Your task to perform on an android device: Search for the best books of all time on Goodreads Image 0: 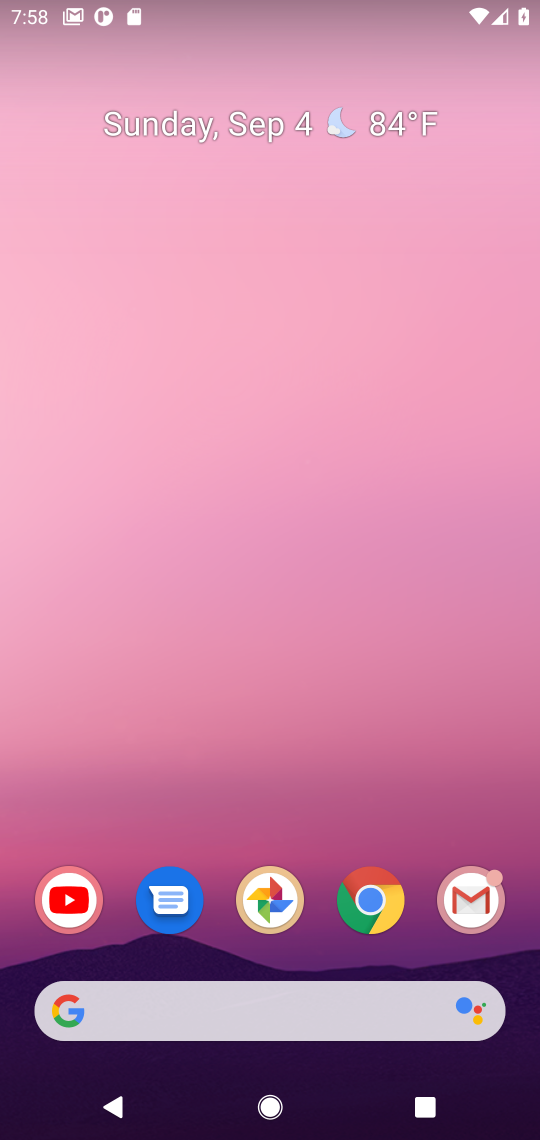
Step 0: drag from (330, 971) to (432, 149)
Your task to perform on an android device: Search for the best books of all time on Goodreads Image 1: 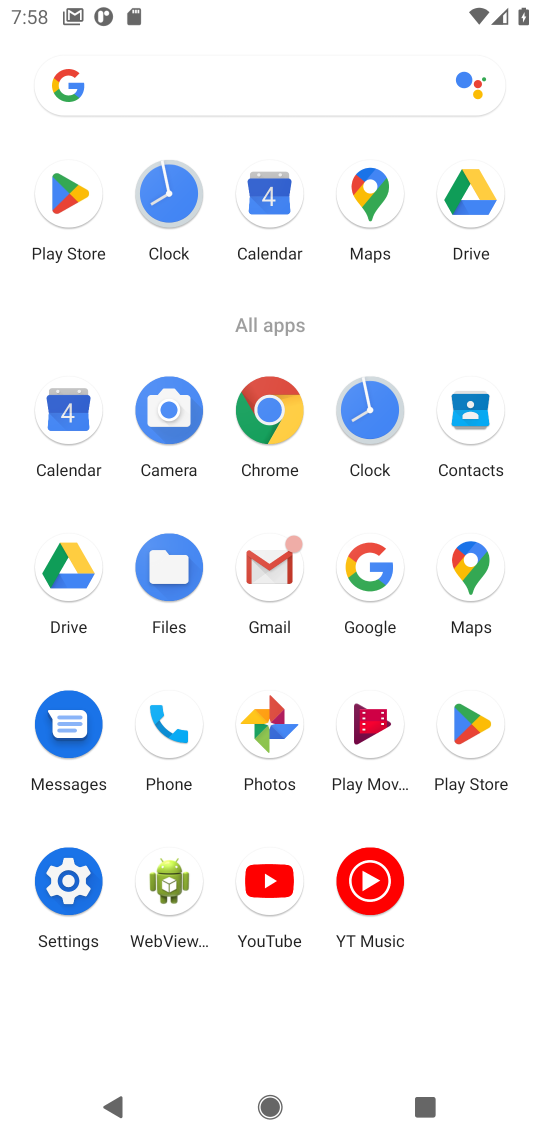
Step 1: click (273, 416)
Your task to perform on an android device: Search for the best books of all time on Goodreads Image 2: 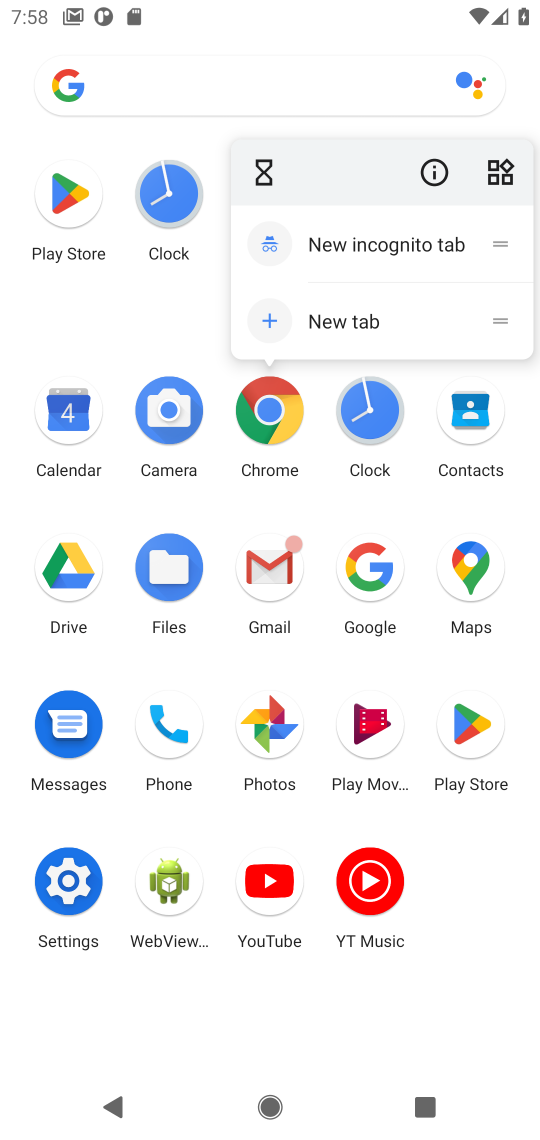
Step 2: click (272, 416)
Your task to perform on an android device: Search for the best books of all time on Goodreads Image 3: 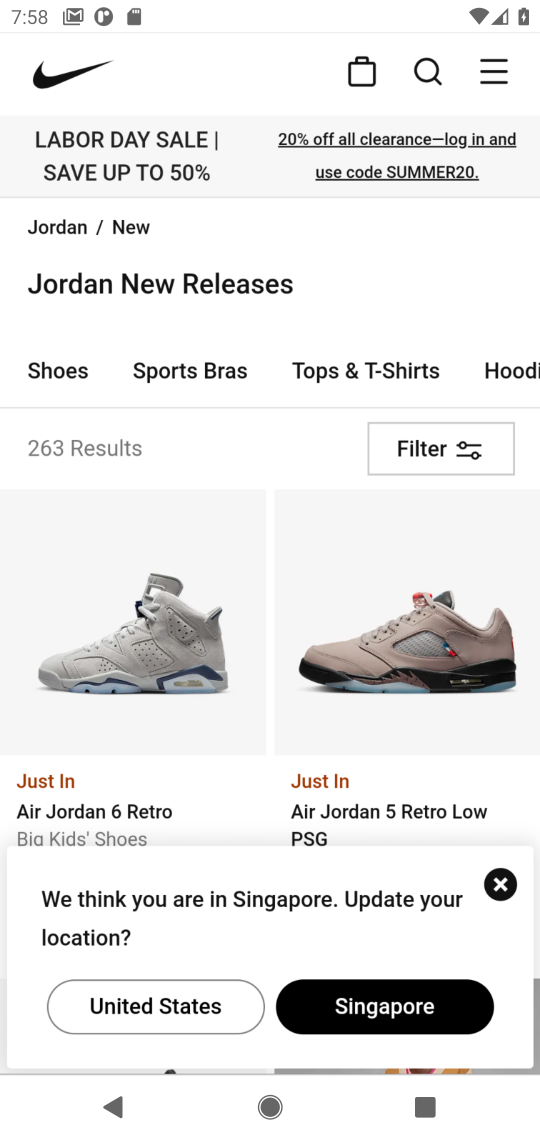
Step 3: drag from (354, 188) to (321, 787)
Your task to perform on an android device: Search for the best books of all time on Goodreads Image 4: 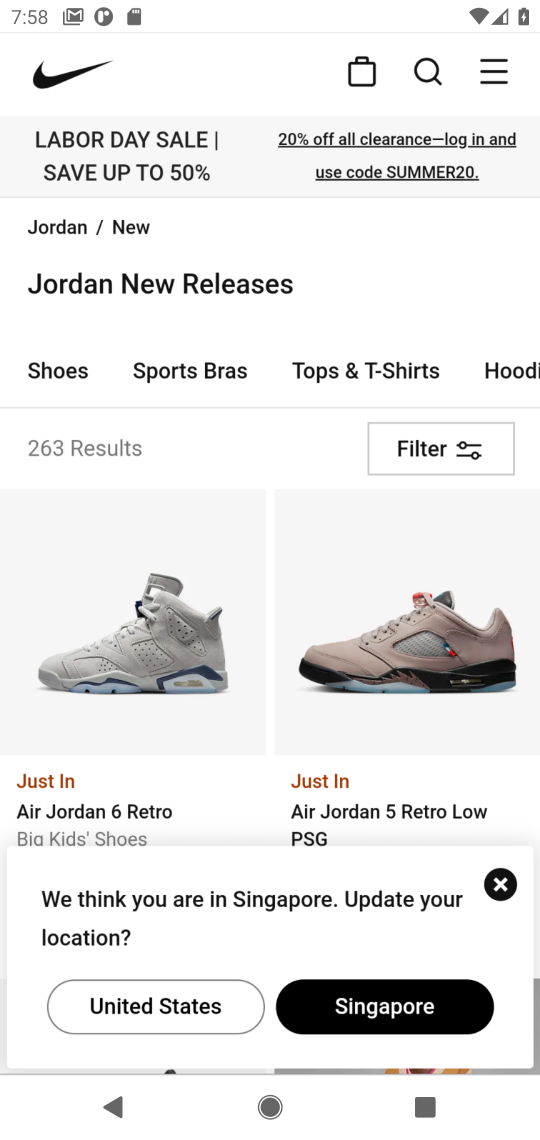
Step 4: drag from (277, 259) to (266, 775)
Your task to perform on an android device: Search for the best books of all time on Goodreads Image 5: 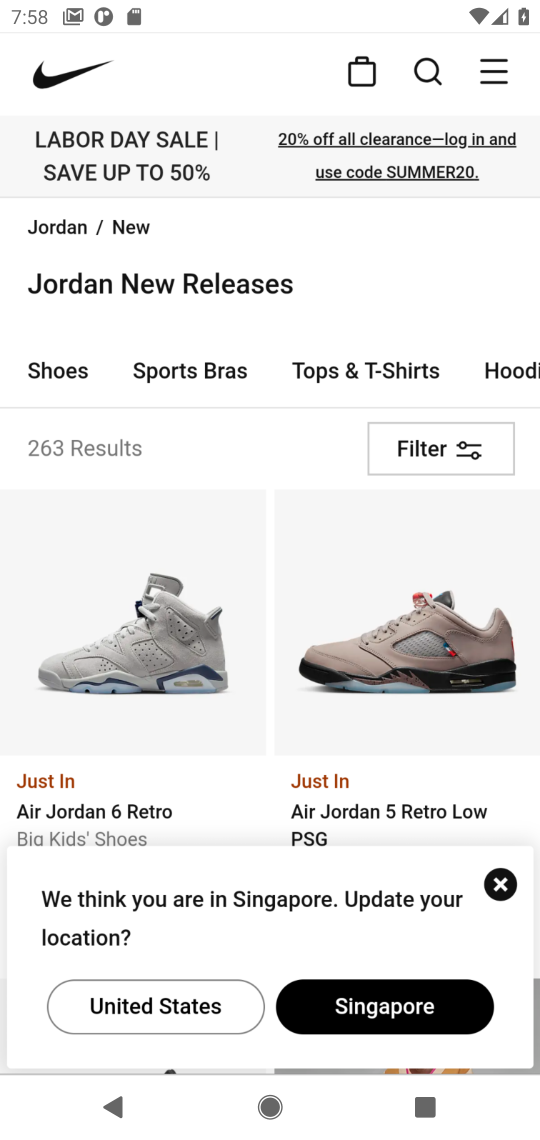
Step 5: drag from (444, 506) to (236, 1088)
Your task to perform on an android device: Search for the best books of all time on Goodreads Image 6: 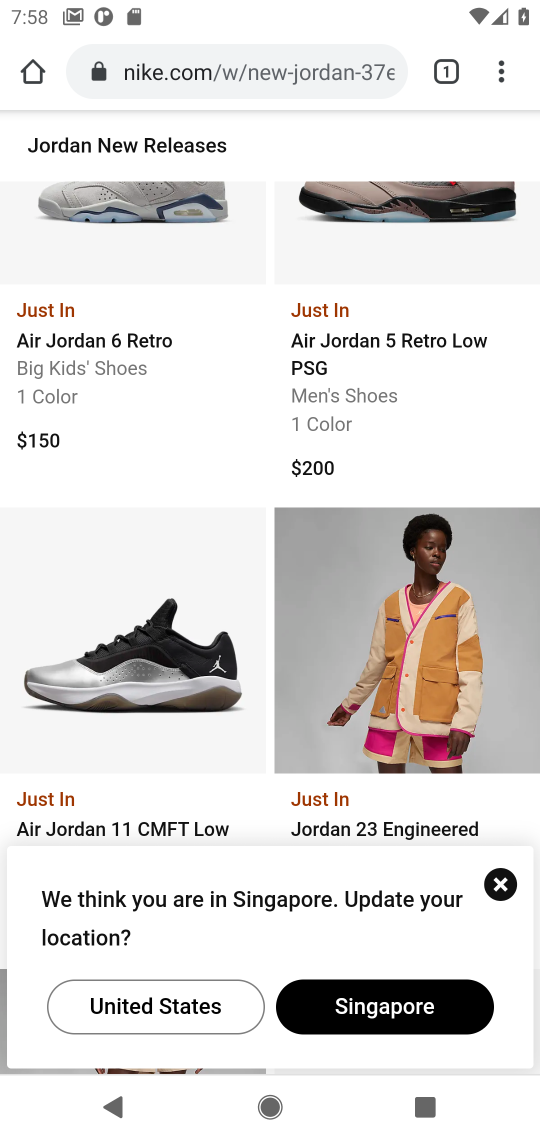
Step 6: click (171, 54)
Your task to perform on an android device: Search for the best books of all time on Goodreads Image 7: 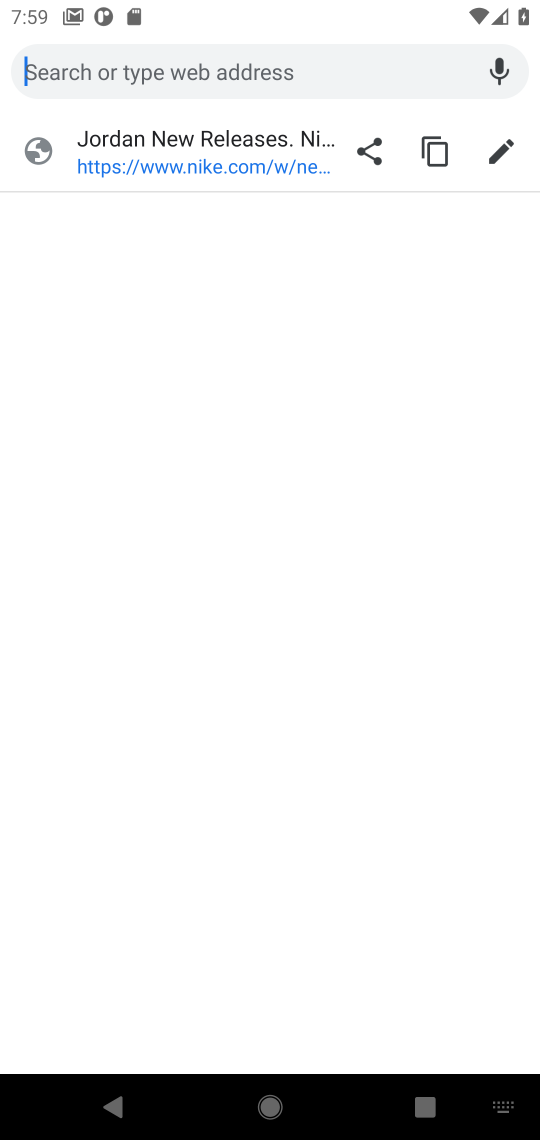
Step 7: type "best book of all time on Goodreads"
Your task to perform on an android device: Search for the best books of all time on Goodreads Image 8: 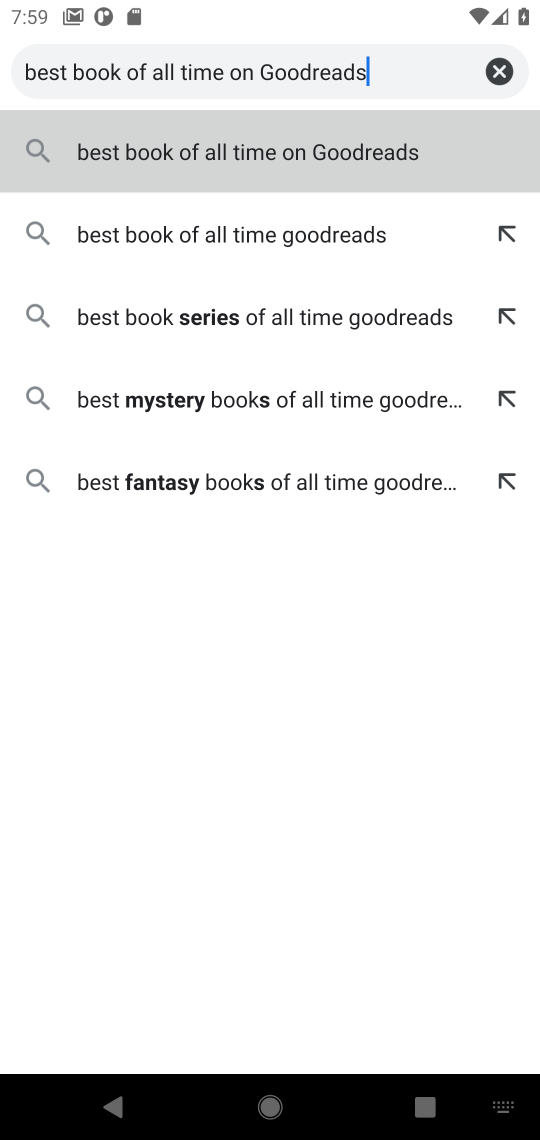
Step 8: press enter
Your task to perform on an android device: Search for the best books of all time on Goodreads Image 9: 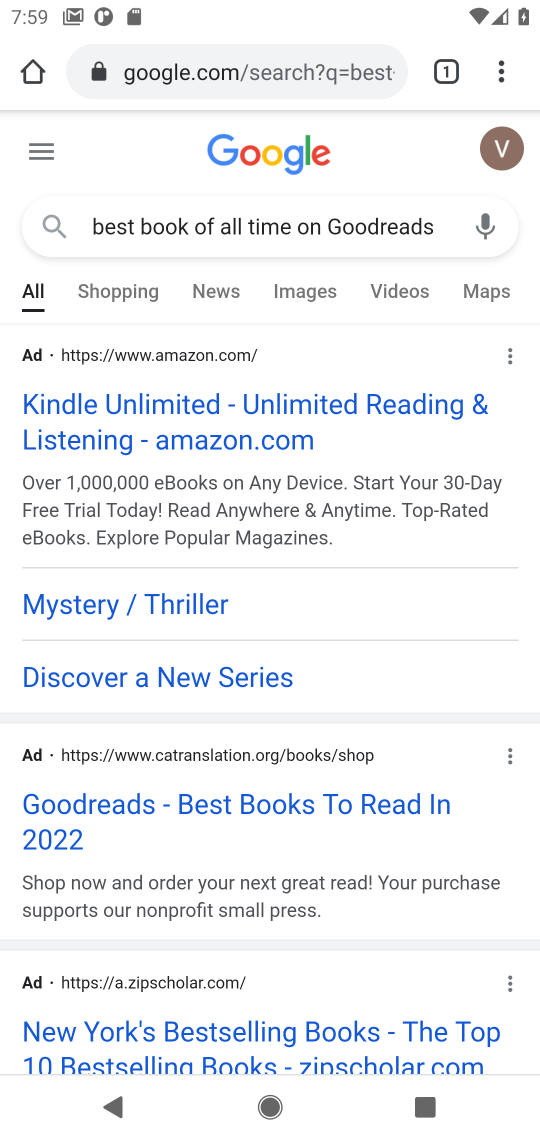
Step 9: drag from (283, 842) to (376, 241)
Your task to perform on an android device: Search for the best books of all time on Goodreads Image 10: 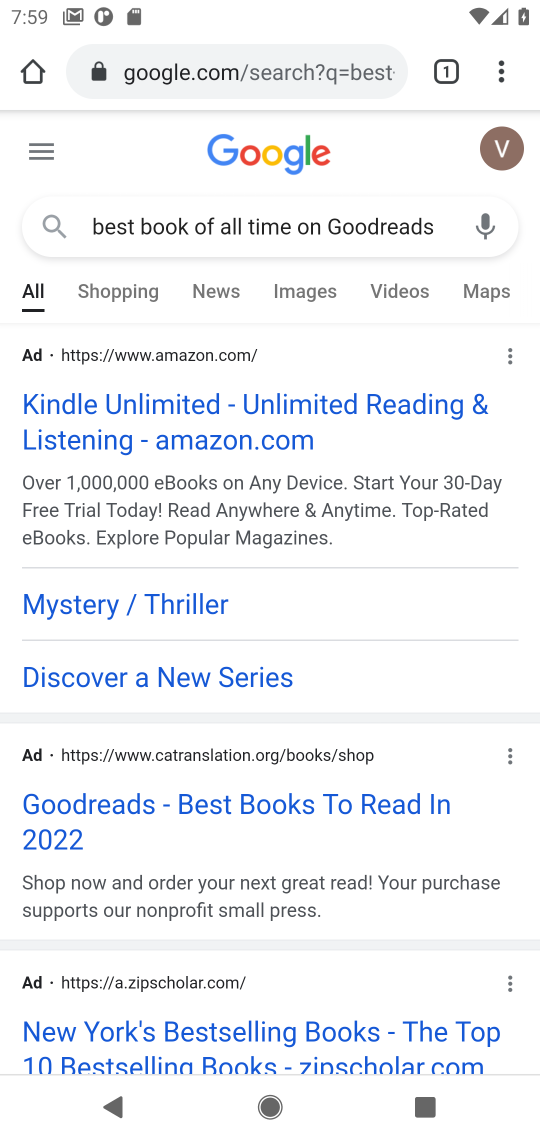
Step 10: drag from (317, 998) to (333, 385)
Your task to perform on an android device: Search for the best books of all time on Goodreads Image 11: 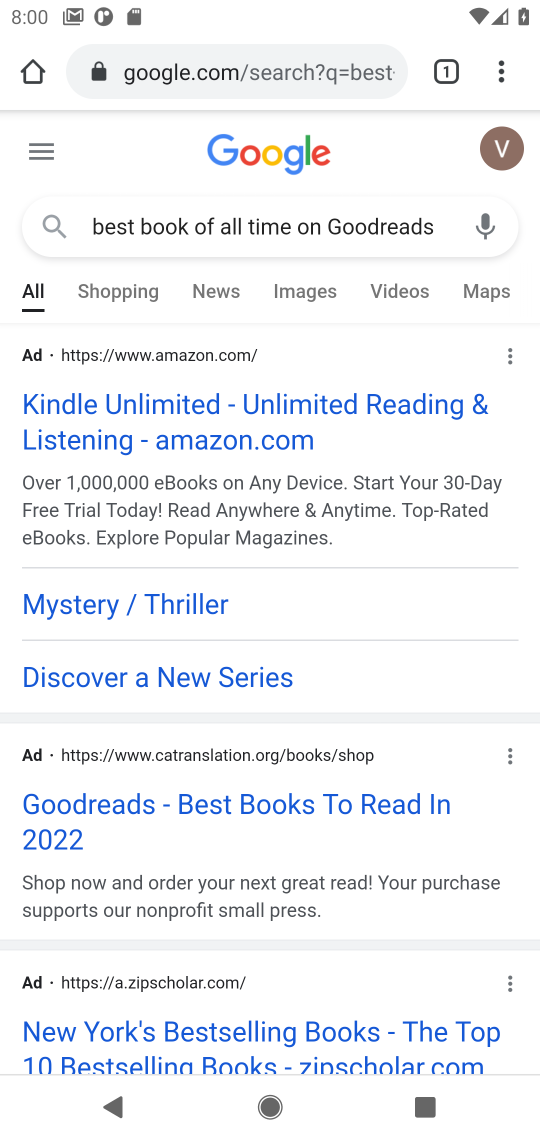
Step 11: drag from (375, 911) to (539, 202)
Your task to perform on an android device: Search for the best books of all time on Goodreads Image 12: 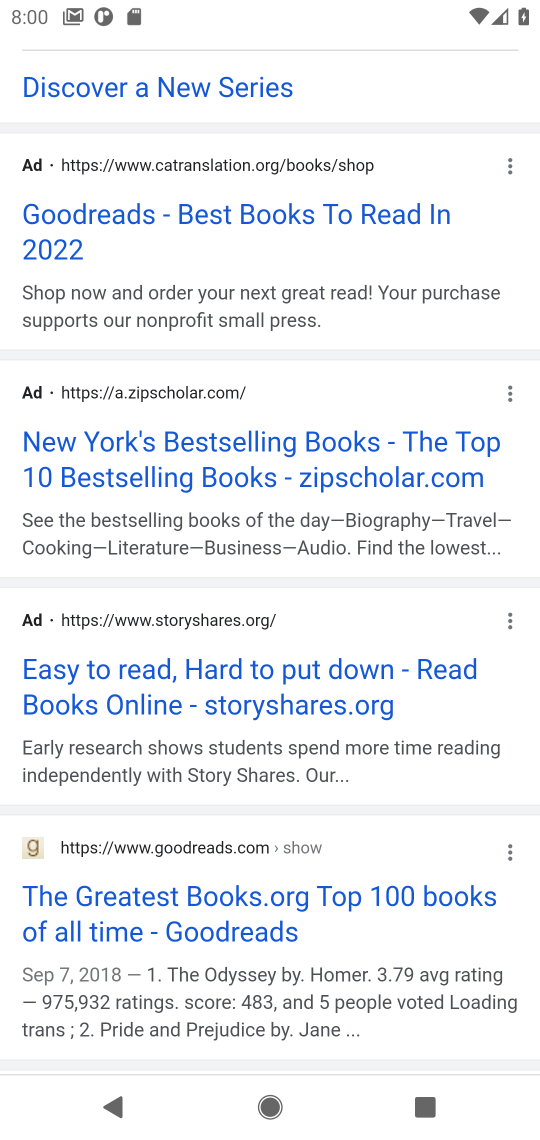
Step 12: click (305, 916)
Your task to perform on an android device: Search for the best books of all time on Goodreads Image 13: 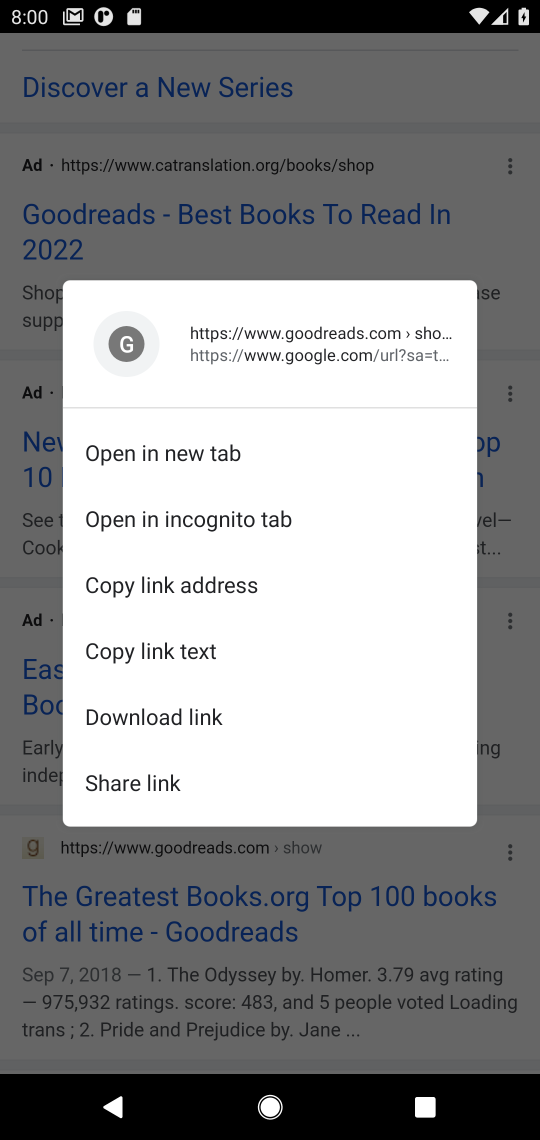
Step 13: click (192, 891)
Your task to perform on an android device: Search for the best books of all time on Goodreads Image 14: 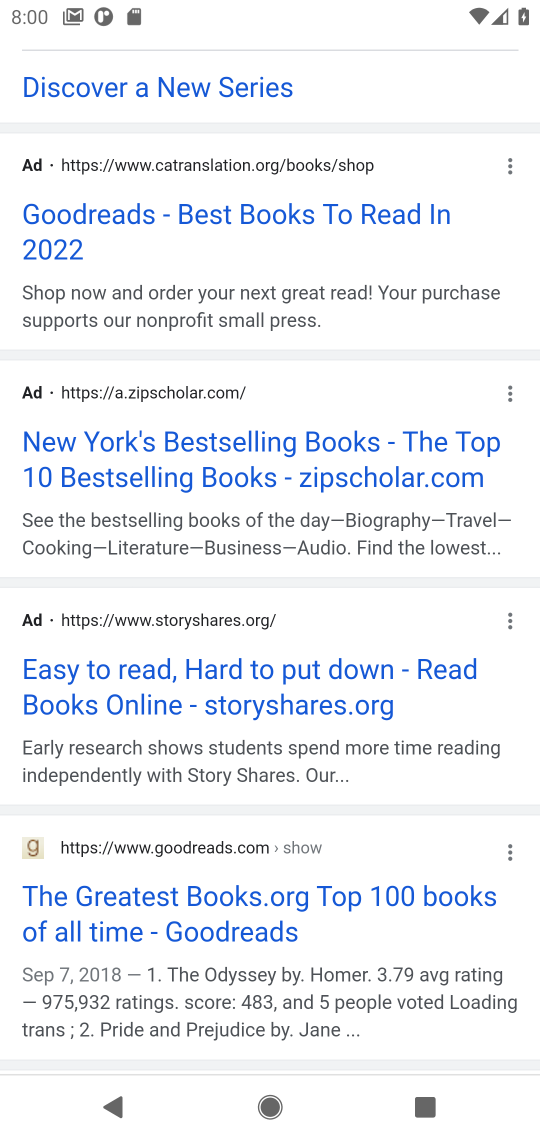
Step 14: click (192, 891)
Your task to perform on an android device: Search for the best books of all time on Goodreads Image 15: 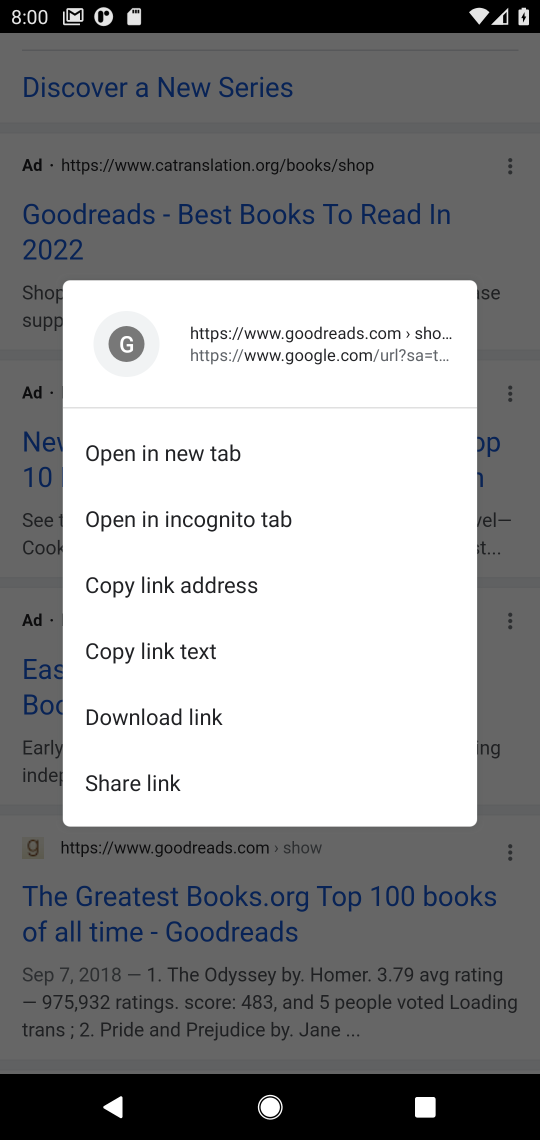
Step 15: click (192, 891)
Your task to perform on an android device: Search for the best books of all time on Goodreads Image 16: 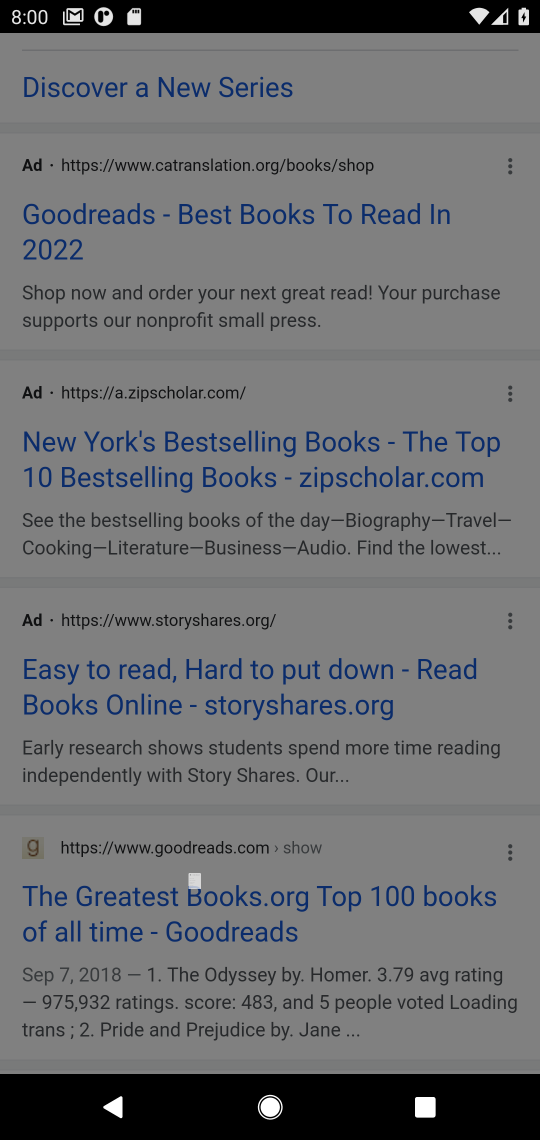
Step 16: click (180, 923)
Your task to perform on an android device: Search for the best books of all time on Goodreads Image 17: 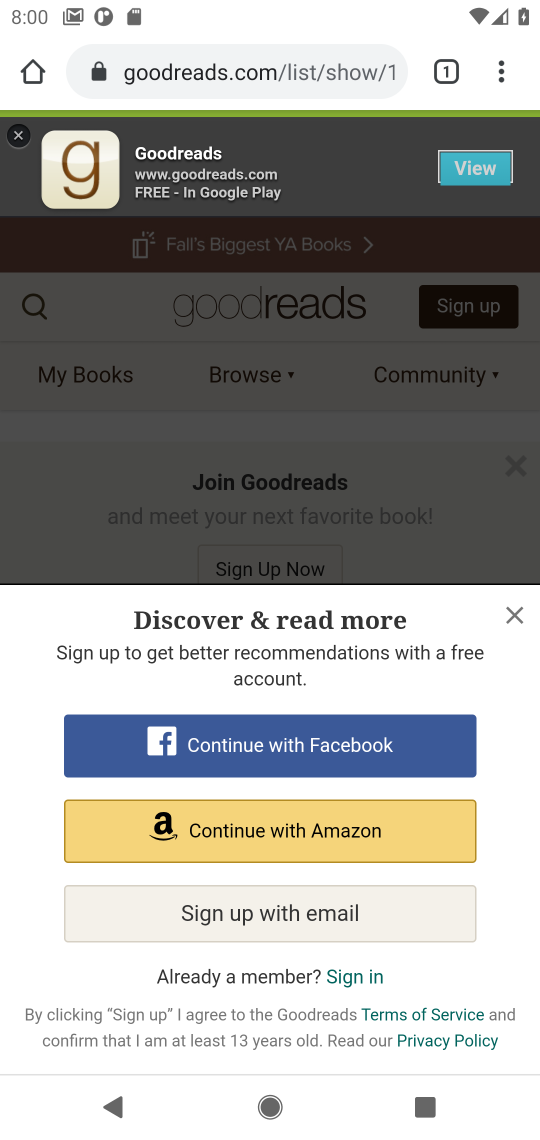
Step 17: click (510, 617)
Your task to perform on an android device: Search for the best books of all time on Goodreads Image 18: 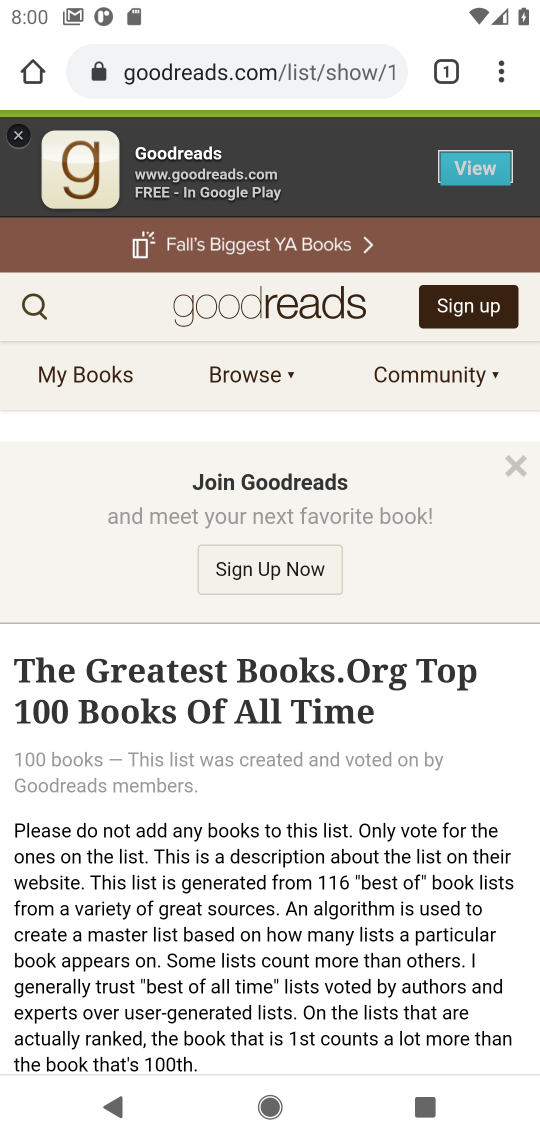
Step 18: drag from (220, 676) to (336, 122)
Your task to perform on an android device: Search for the best books of all time on Goodreads Image 19: 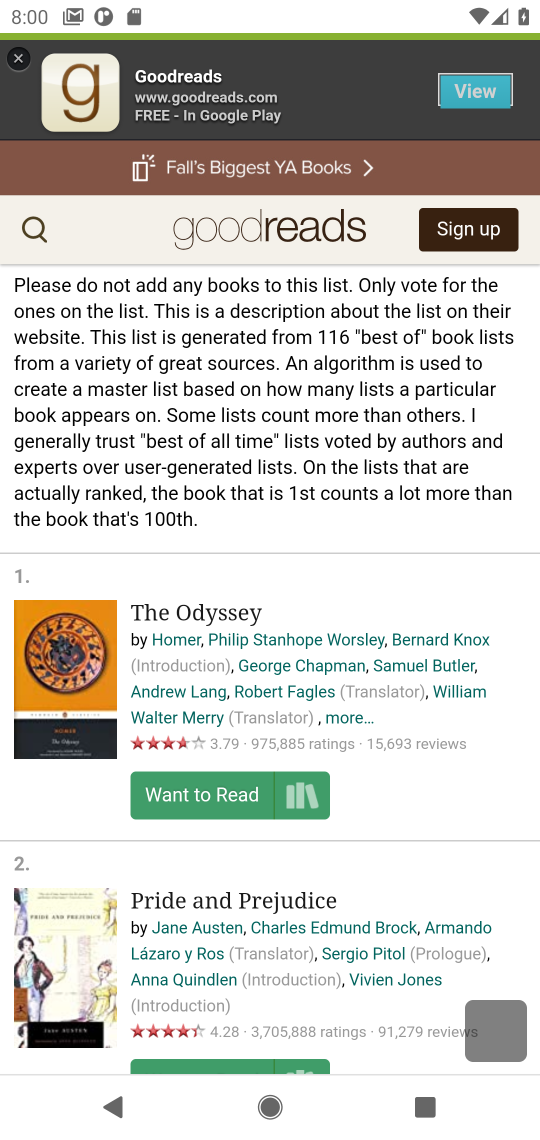
Step 19: click (326, 804)
Your task to perform on an android device: Search for the best books of all time on Goodreads Image 20: 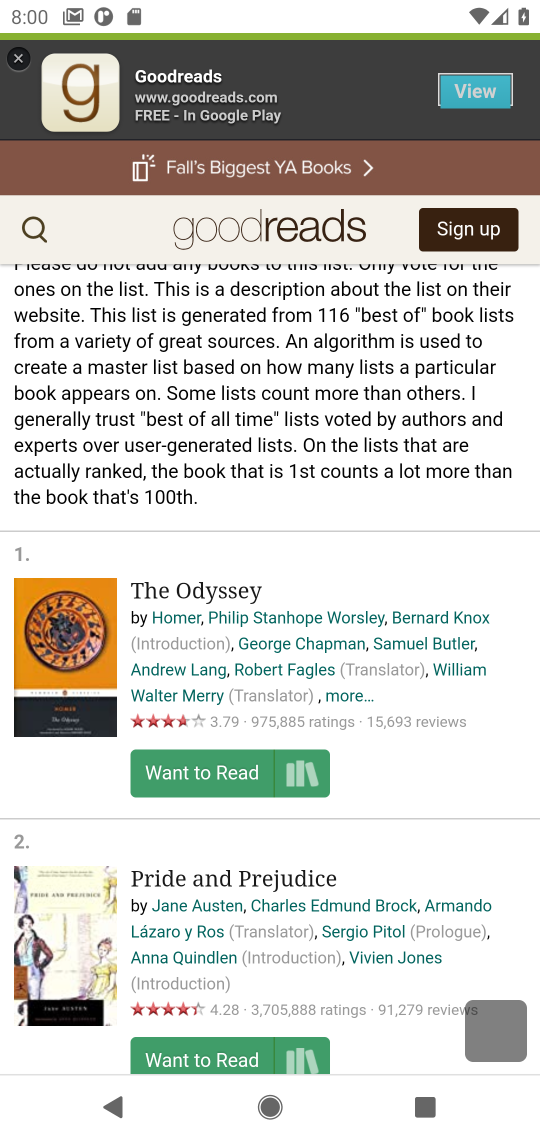
Step 20: task complete